Your task to perform on an android device: What's the weather going to be this weekend? Image 0: 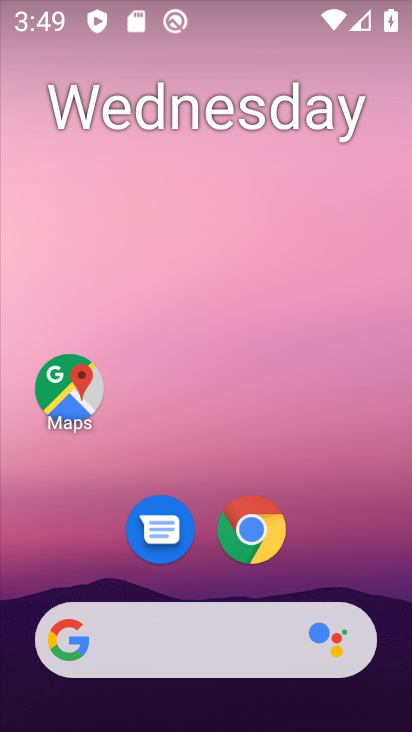
Step 0: drag from (357, 573) to (358, 155)
Your task to perform on an android device: What's the weather going to be this weekend? Image 1: 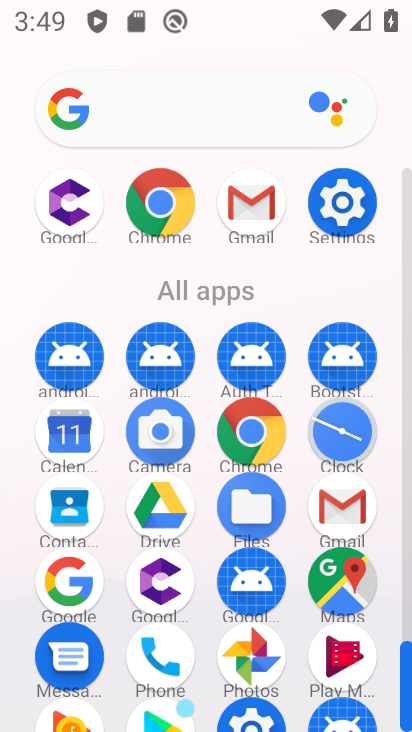
Step 1: click (175, 224)
Your task to perform on an android device: What's the weather going to be this weekend? Image 2: 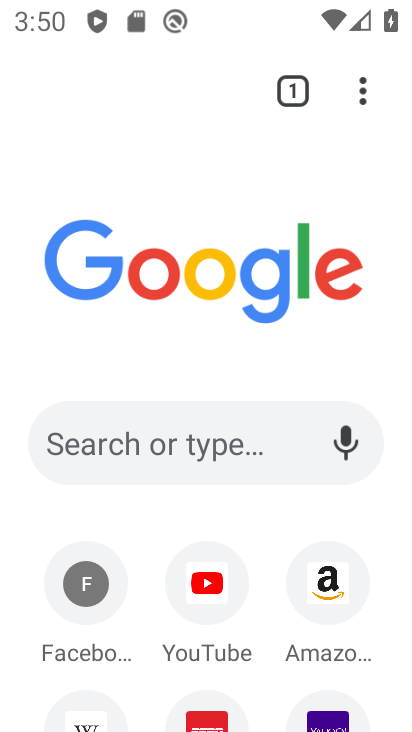
Step 2: click (191, 447)
Your task to perform on an android device: What's the weather going to be this weekend? Image 3: 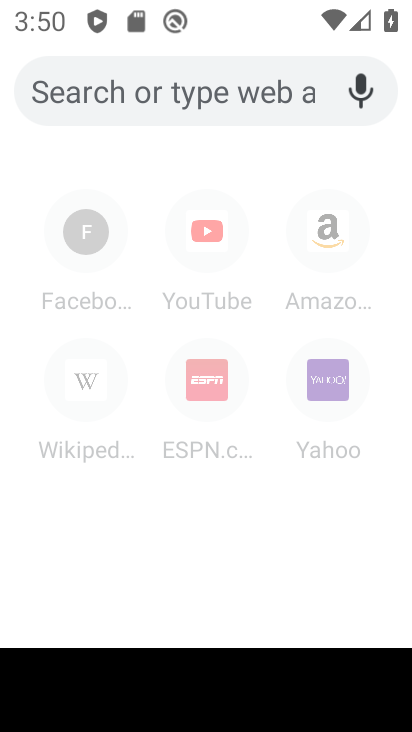
Step 3: type "whats the weather going to be this weekend"
Your task to perform on an android device: What's the weather going to be this weekend? Image 4: 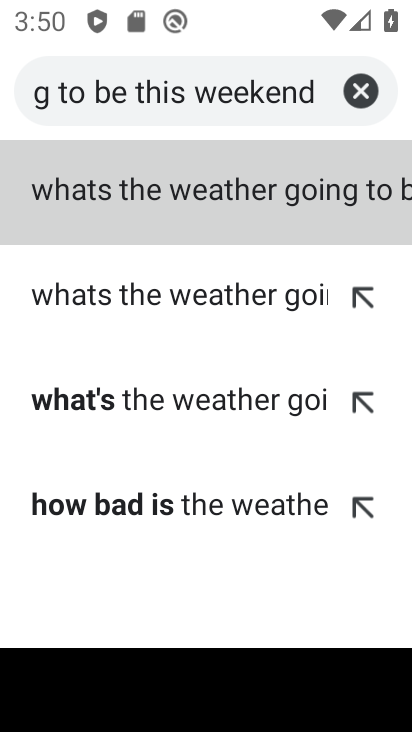
Step 4: click (83, 211)
Your task to perform on an android device: What's the weather going to be this weekend? Image 5: 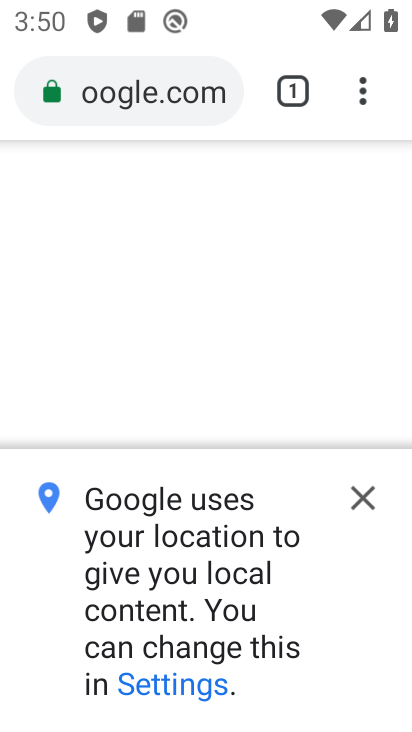
Step 5: click (366, 505)
Your task to perform on an android device: What's the weather going to be this weekend? Image 6: 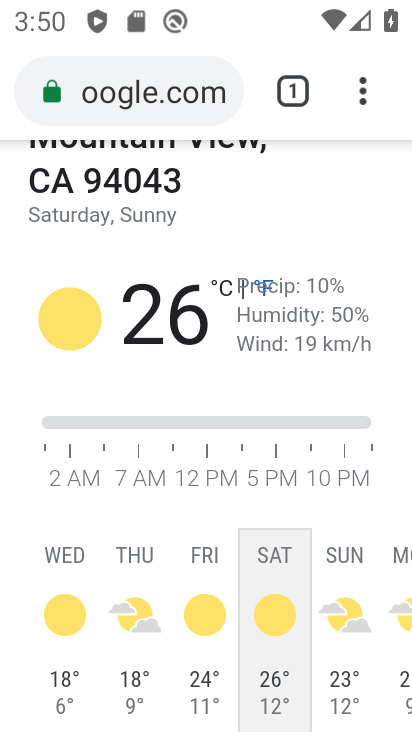
Step 6: task complete